Your task to perform on an android device: Check the weather Image 0: 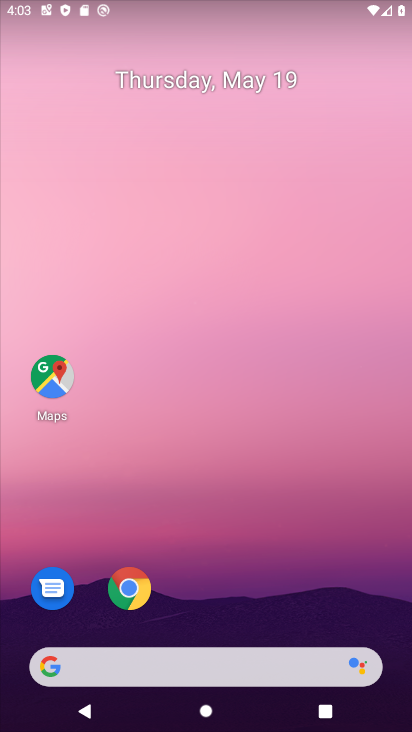
Step 0: click (199, 684)
Your task to perform on an android device: Check the weather Image 1: 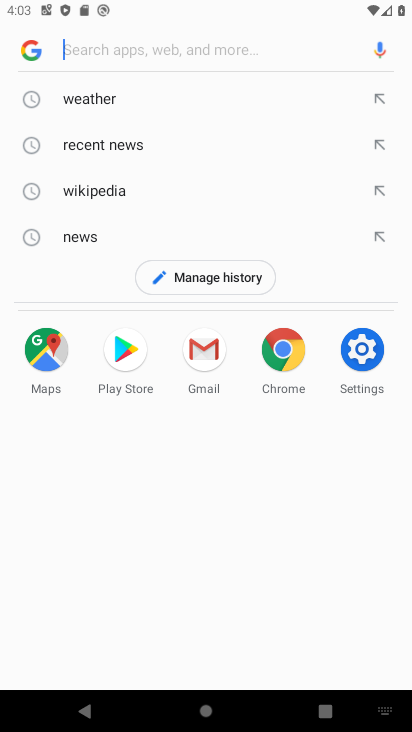
Step 1: click (84, 111)
Your task to perform on an android device: Check the weather Image 2: 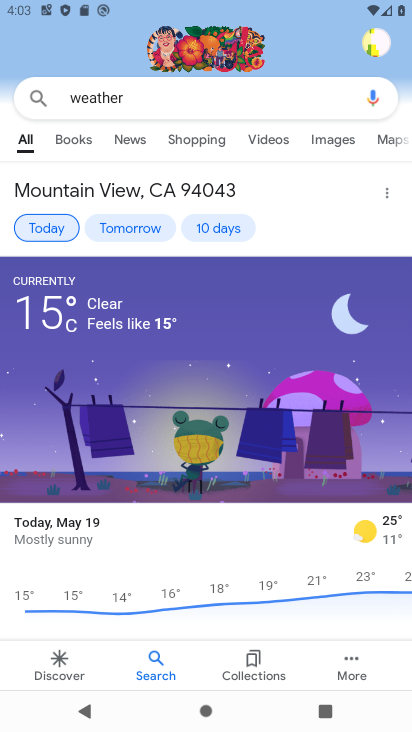
Step 2: task complete